Your task to perform on an android device: Open display settings Image 0: 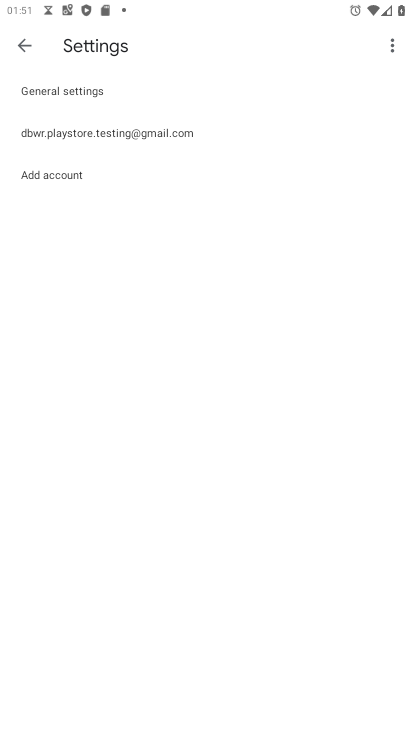
Step 0: press home button
Your task to perform on an android device: Open display settings Image 1: 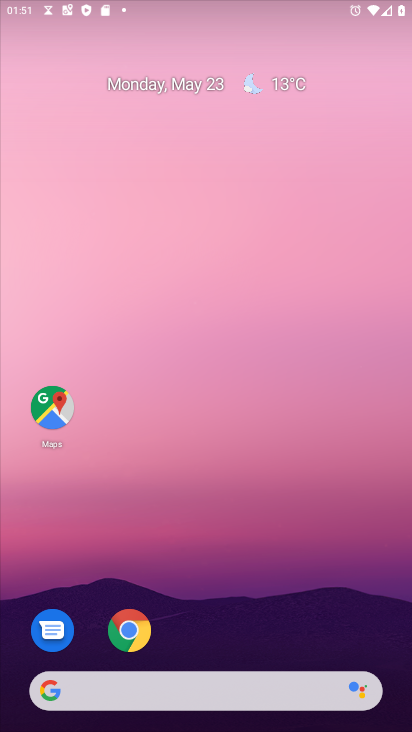
Step 1: drag from (298, 634) to (182, 80)
Your task to perform on an android device: Open display settings Image 2: 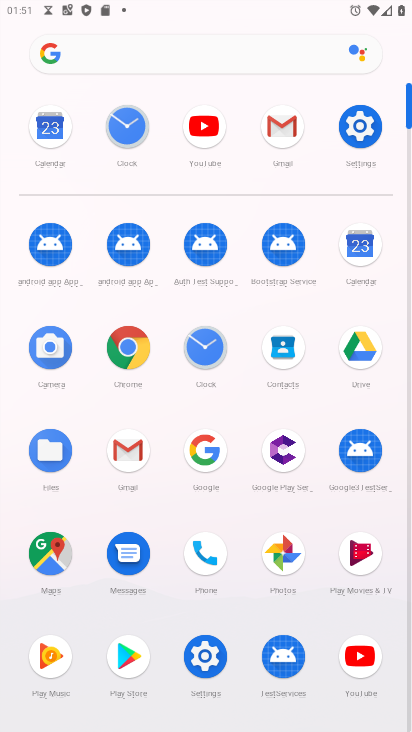
Step 2: click (363, 126)
Your task to perform on an android device: Open display settings Image 3: 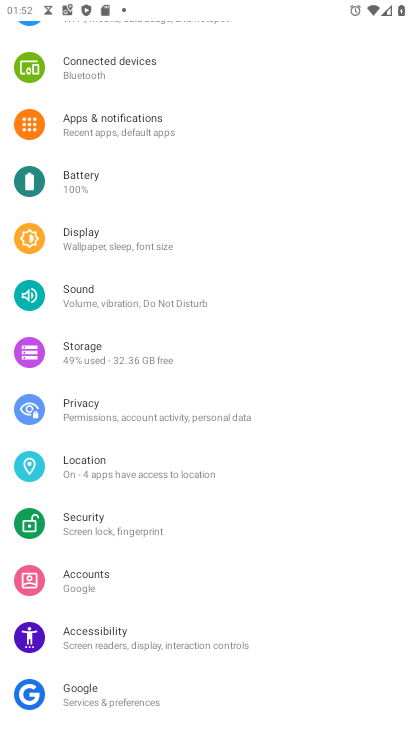
Step 3: click (150, 260)
Your task to perform on an android device: Open display settings Image 4: 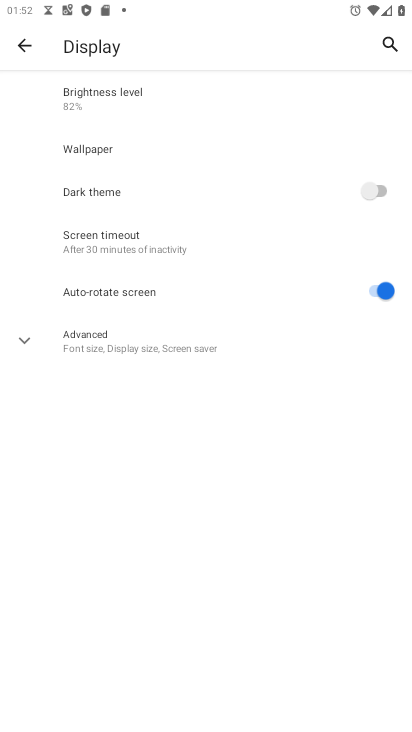
Step 4: task complete